Your task to perform on an android device: Open calendar and show me the third week of next month Image 0: 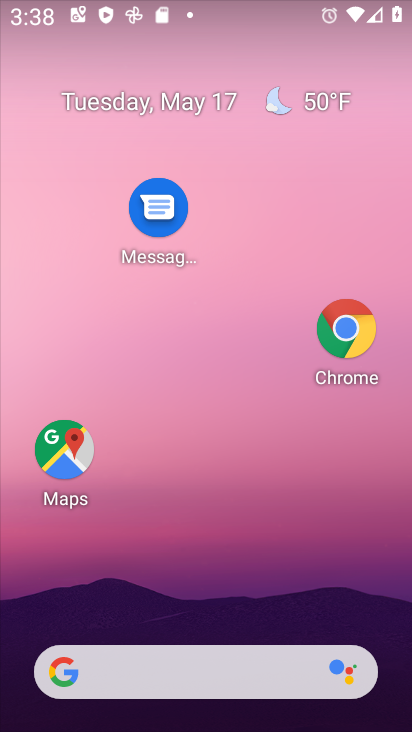
Step 0: drag from (200, 597) to (357, 0)
Your task to perform on an android device: Open calendar and show me the third week of next month Image 1: 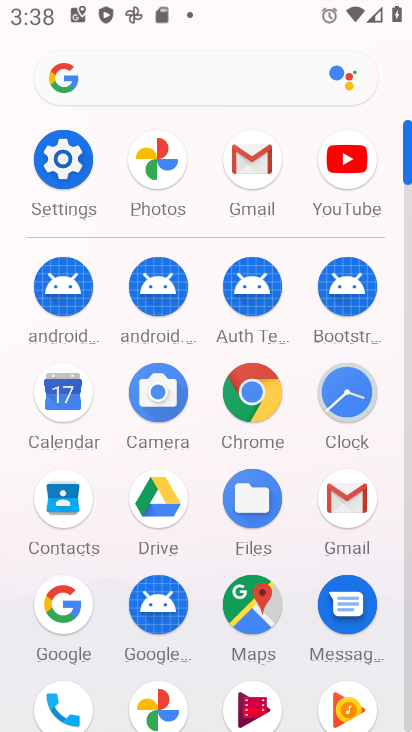
Step 1: click (60, 401)
Your task to perform on an android device: Open calendar and show me the third week of next month Image 2: 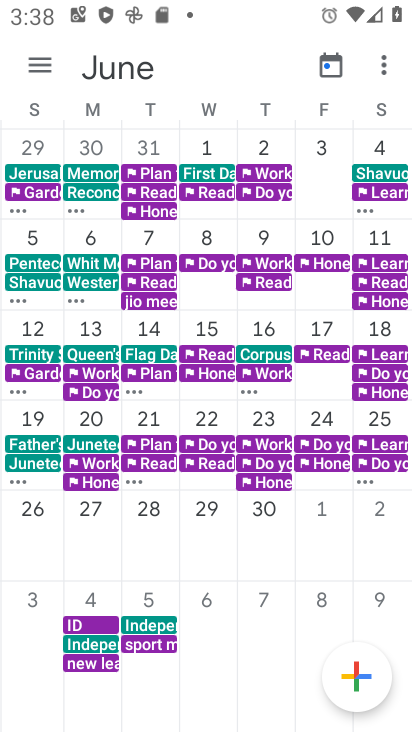
Step 2: task complete